Your task to perform on an android device: Open the Play Movies app and select the watchlist tab. Image 0: 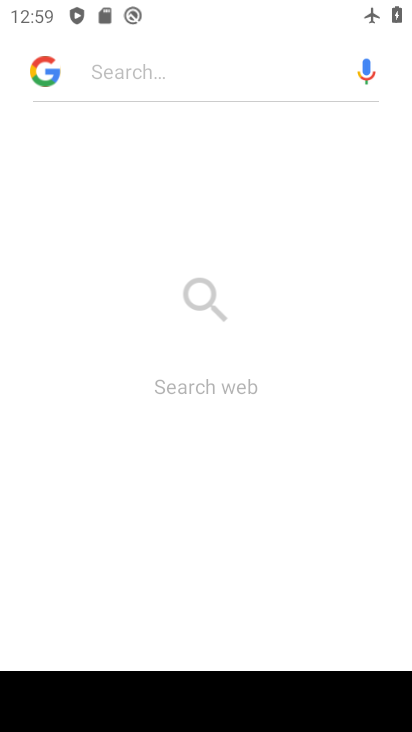
Step 0: press home button
Your task to perform on an android device: Open the Play Movies app and select the watchlist tab. Image 1: 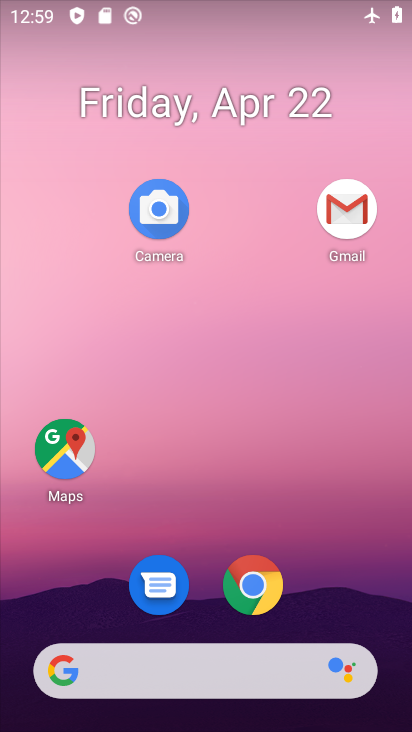
Step 1: drag from (313, 569) to (374, 81)
Your task to perform on an android device: Open the Play Movies app and select the watchlist tab. Image 2: 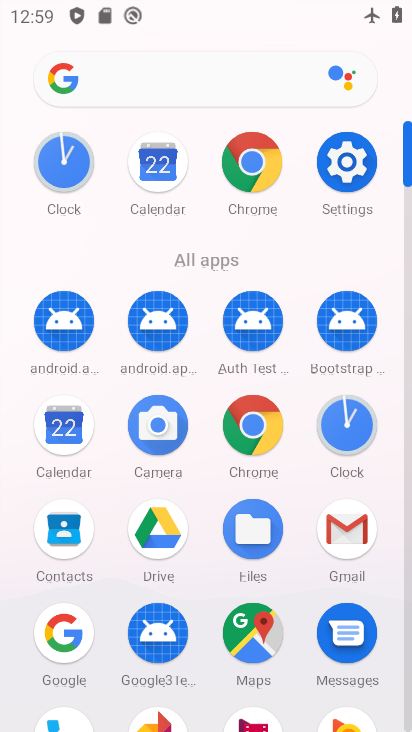
Step 2: drag from (313, 446) to (336, 189)
Your task to perform on an android device: Open the Play Movies app and select the watchlist tab. Image 3: 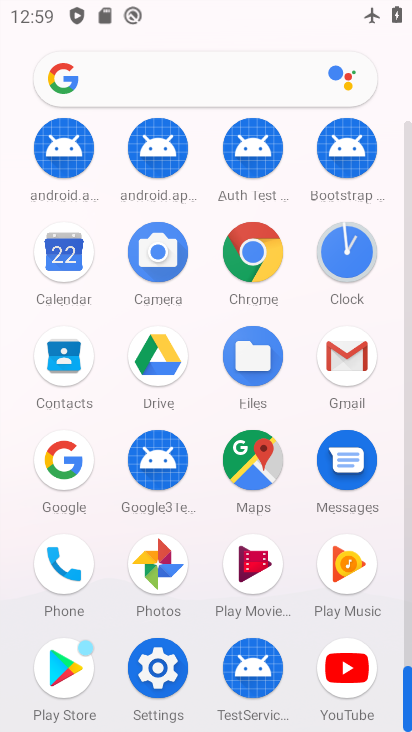
Step 3: click (250, 562)
Your task to perform on an android device: Open the Play Movies app and select the watchlist tab. Image 4: 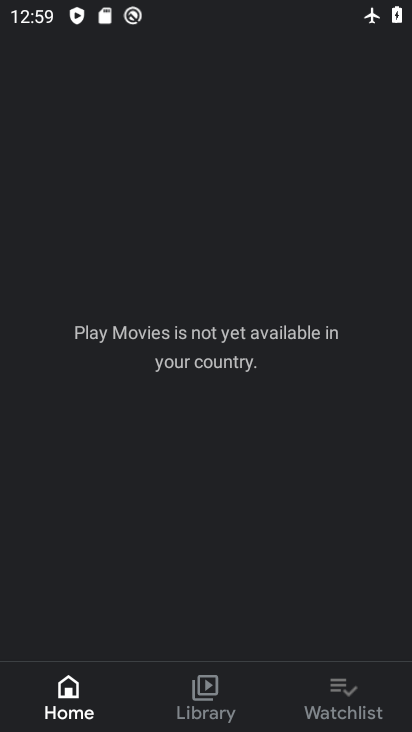
Step 4: click (336, 689)
Your task to perform on an android device: Open the Play Movies app and select the watchlist tab. Image 5: 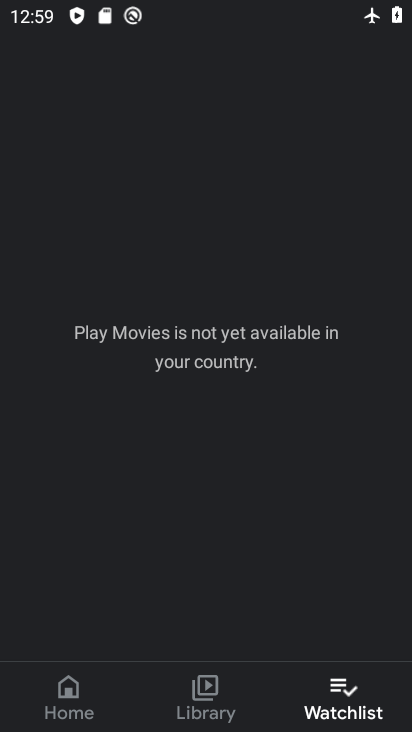
Step 5: task complete